Your task to perform on an android device: turn on data saver in the chrome app Image 0: 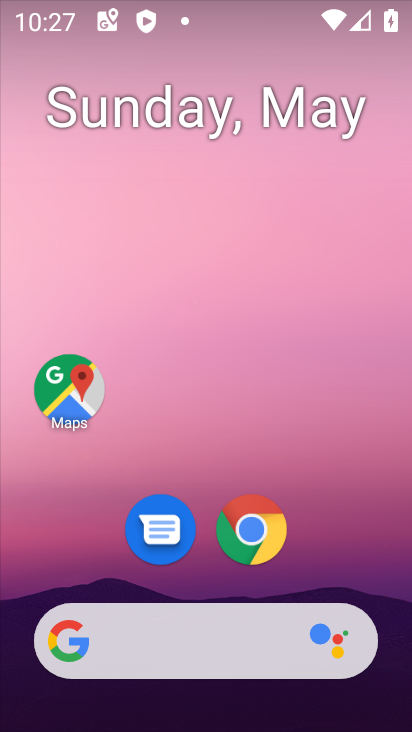
Step 0: click (231, 531)
Your task to perform on an android device: turn on data saver in the chrome app Image 1: 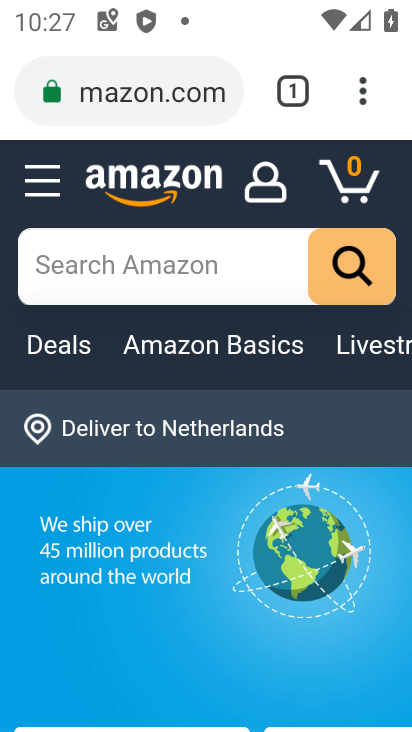
Step 1: click (351, 99)
Your task to perform on an android device: turn on data saver in the chrome app Image 2: 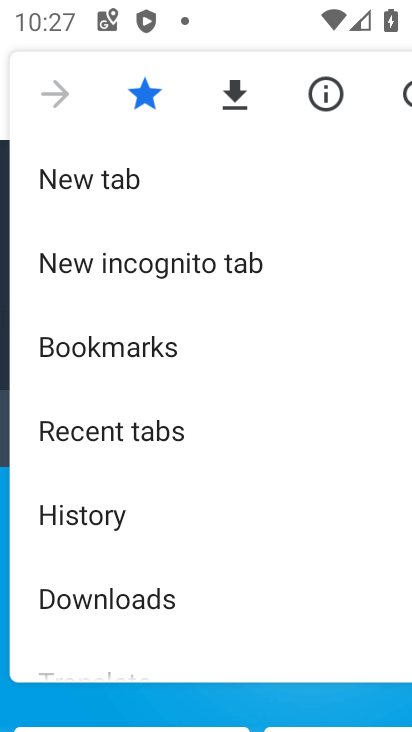
Step 2: drag from (118, 568) to (59, 68)
Your task to perform on an android device: turn on data saver in the chrome app Image 3: 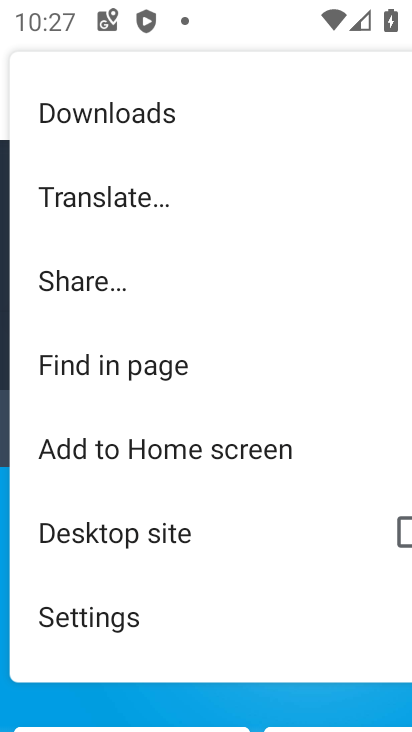
Step 3: click (113, 626)
Your task to perform on an android device: turn on data saver in the chrome app Image 4: 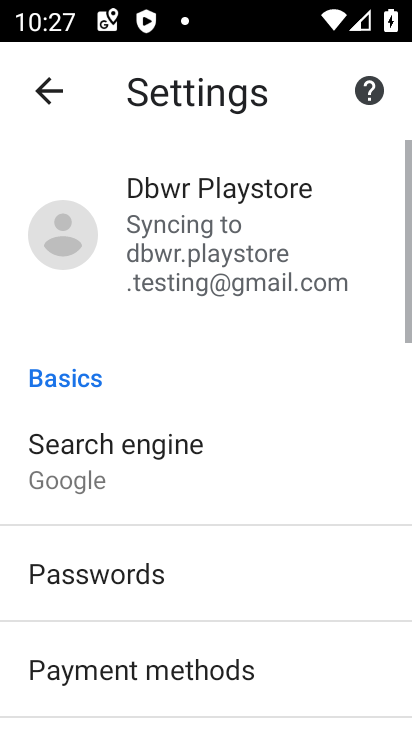
Step 4: drag from (158, 617) to (84, 3)
Your task to perform on an android device: turn on data saver in the chrome app Image 5: 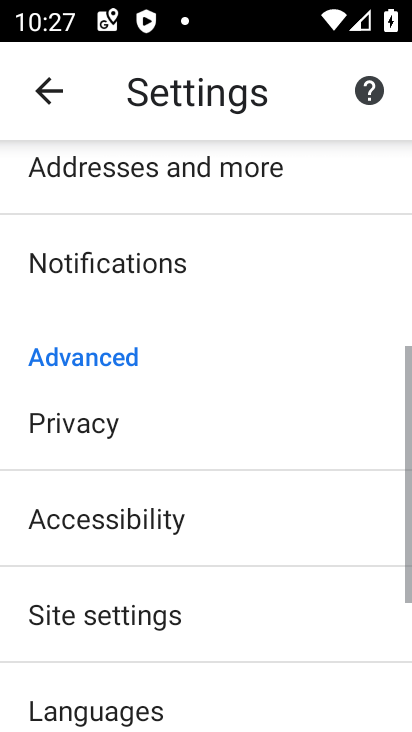
Step 5: drag from (164, 668) to (127, 119)
Your task to perform on an android device: turn on data saver in the chrome app Image 6: 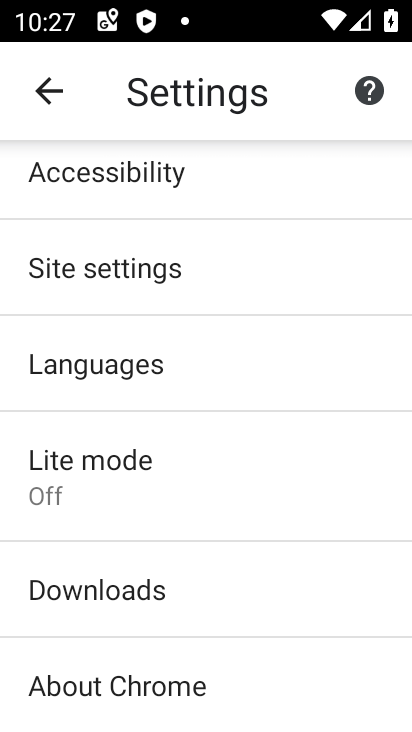
Step 6: click (94, 474)
Your task to perform on an android device: turn on data saver in the chrome app Image 7: 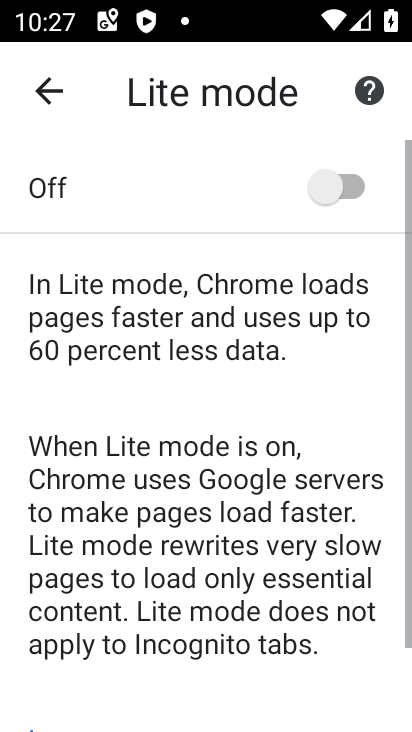
Step 7: click (326, 197)
Your task to perform on an android device: turn on data saver in the chrome app Image 8: 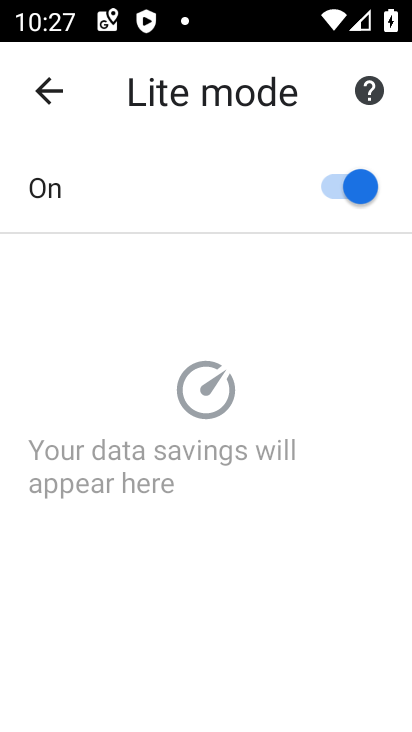
Step 8: task complete